Your task to perform on an android device: Check the weather Image 0: 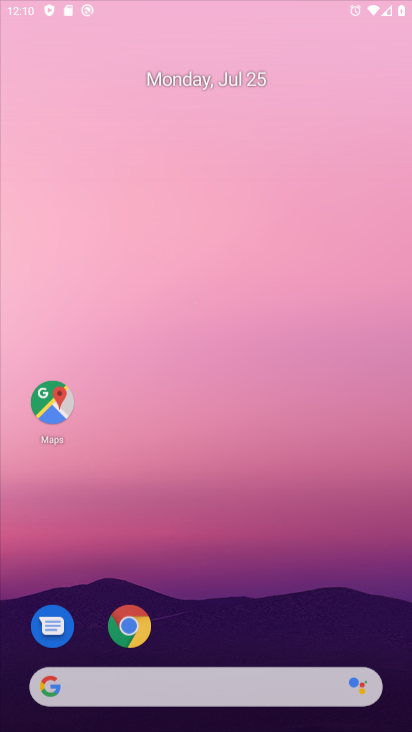
Step 0: click (301, 92)
Your task to perform on an android device: Check the weather Image 1: 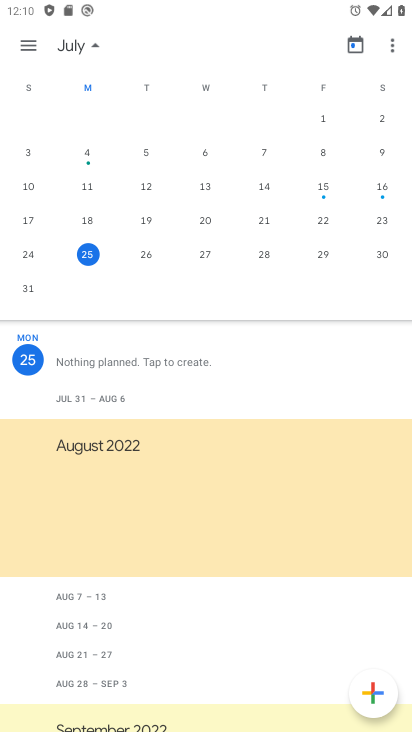
Step 1: press back button
Your task to perform on an android device: Check the weather Image 2: 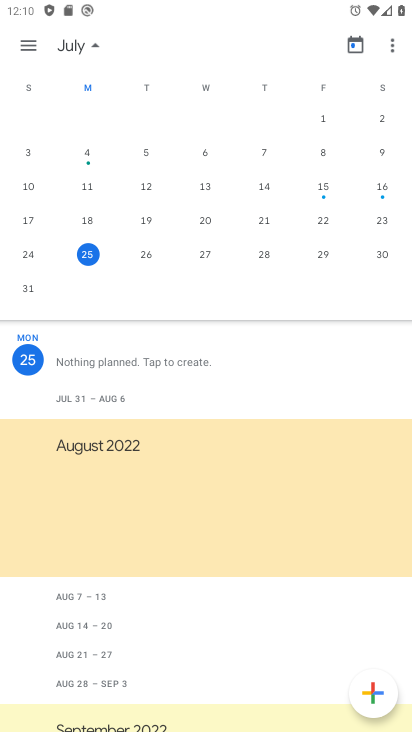
Step 2: press back button
Your task to perform on an android device: Check the weather Image 3: 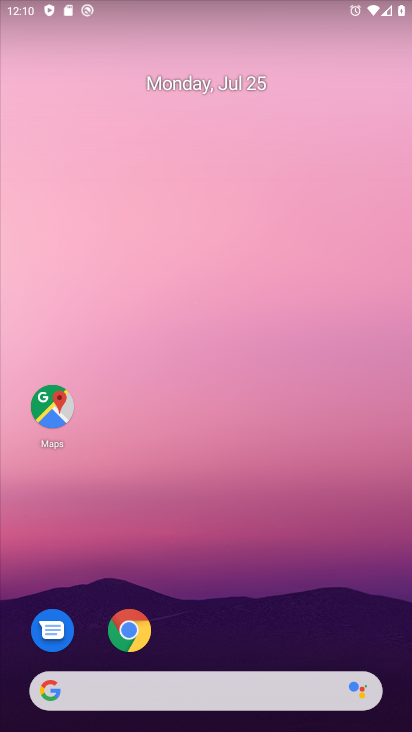
Step 3: drag from (211, 609) to (161, 59)
Your task to perform on an android device: Check the weather Image 4: 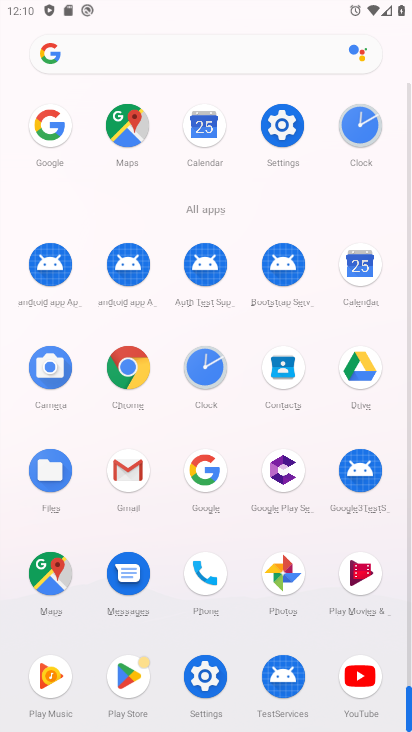
Step 4: click (126, 365)
Your task to perform on an android device: Check the weather Image 5: 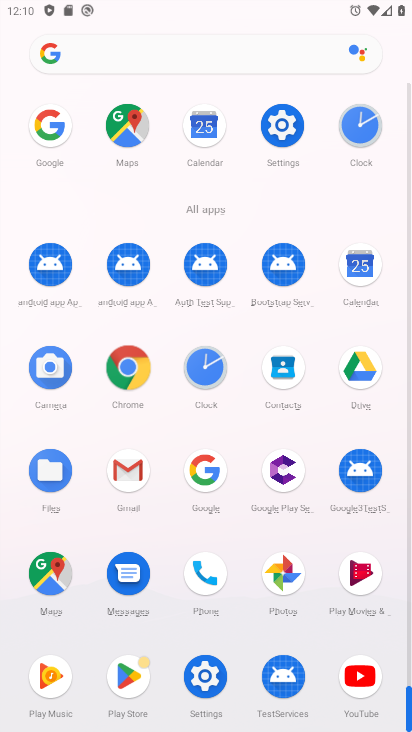
Step 5: click (130, 364)
Your task to perform on an android device: Check the weather Image 6: 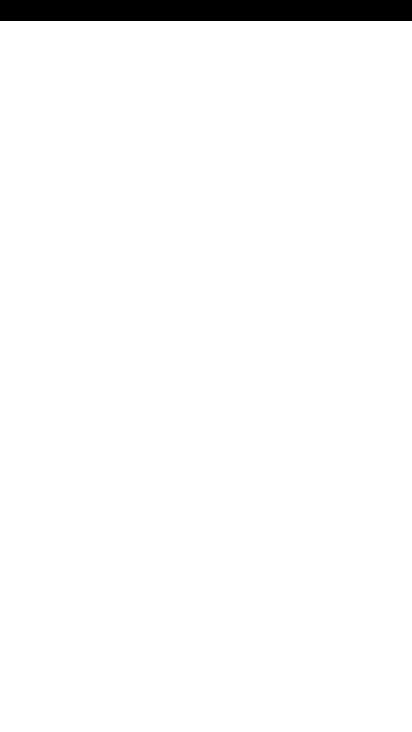
Step 6: click (133, 367)
Your task to perform on an android device: Check the weather Image 7: 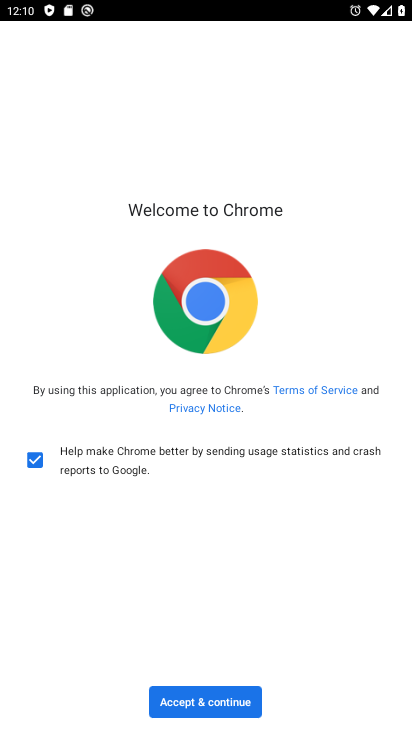
Step 7: click (210, 703)
Your task to perform on an android device: Check the weather Image 8: 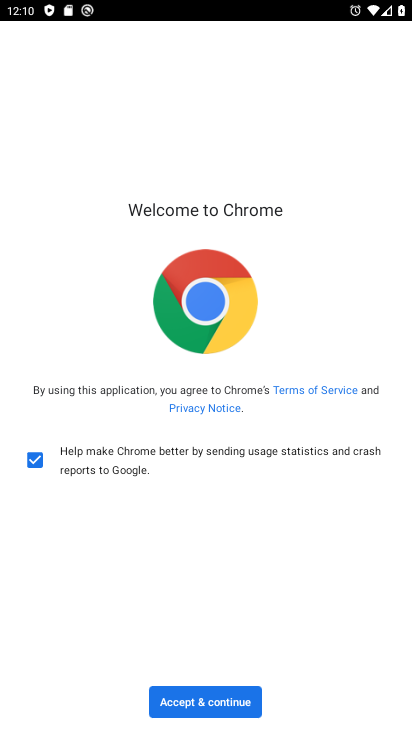
Step 8: click (210, 703)
Your task to perform on an android device: Check the weather Image 9: 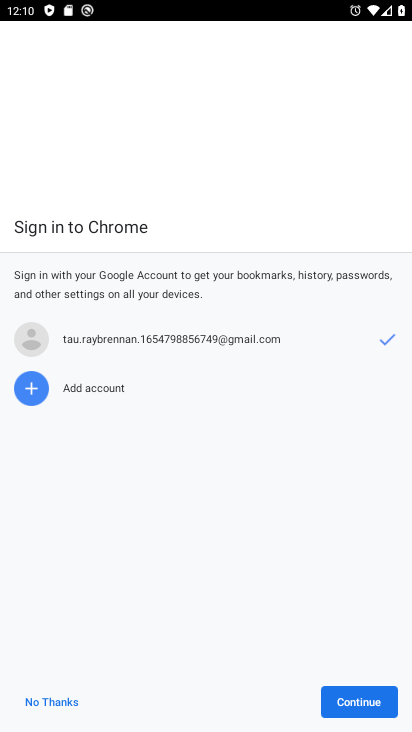
Step 9: click (58, 703)
Your task to perform on an android device: Check the weather Image 10: 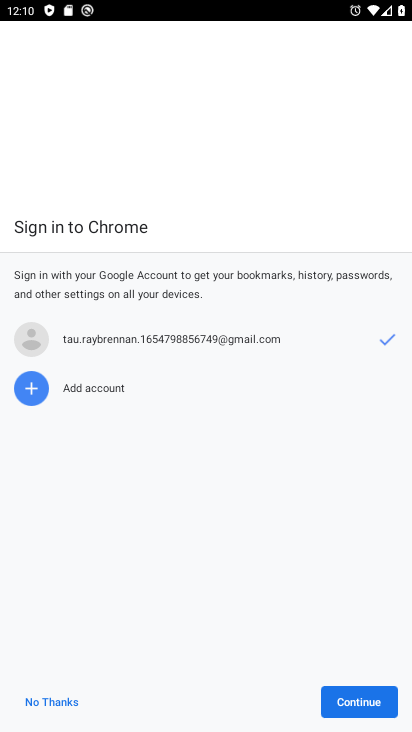
Step 10: click (65, 696)
Your task to perform on an android device: Check the weather Image 11: 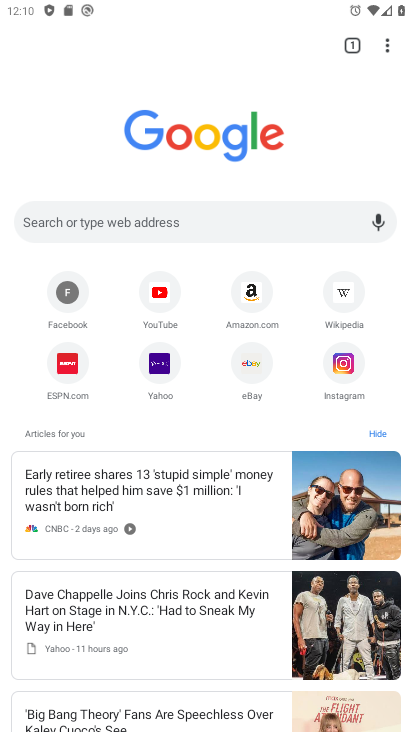
Step 11: click (88, 216)
Your task to perform on an android device: Check the weather Image 12: 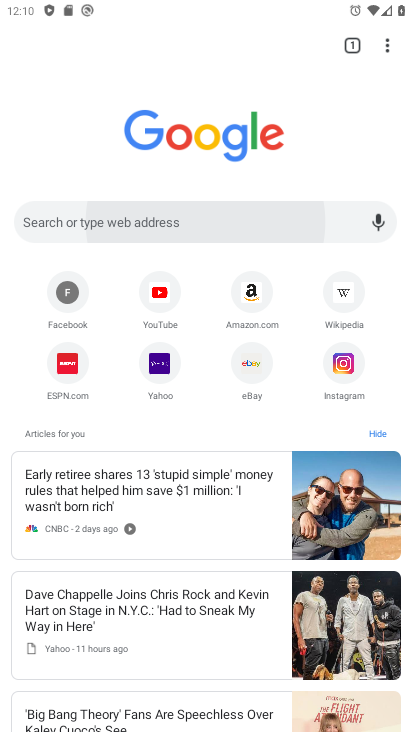
Step 12: click (85, 217)
Your task to perform on an android device: Check the weather Image 13: 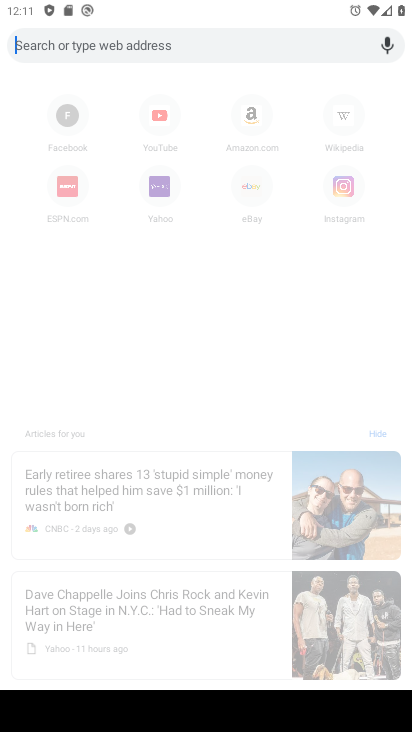
Step 13: type "weather today?"
Your task to perform on an android device: Check the weather Image 14: 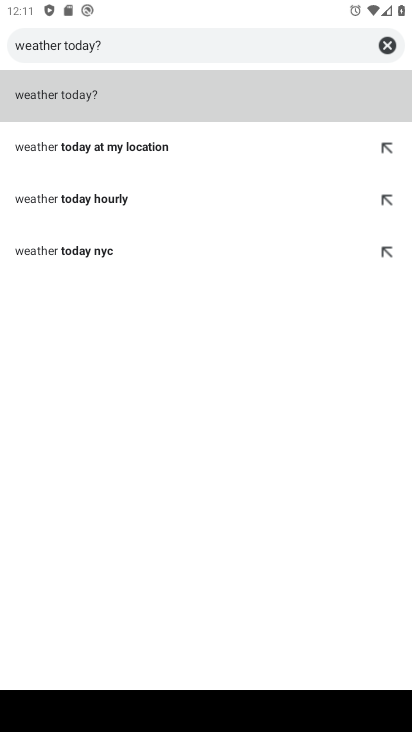
Step 14: click (59, 106)
Your task to perform on an android device: Check the weather Image 15: 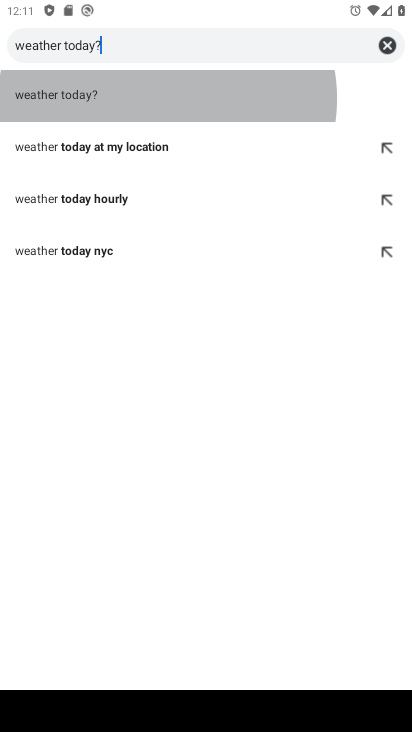
Step 15: click (72, 97)
Your task to perform on an android device: Check the weather Image 16: 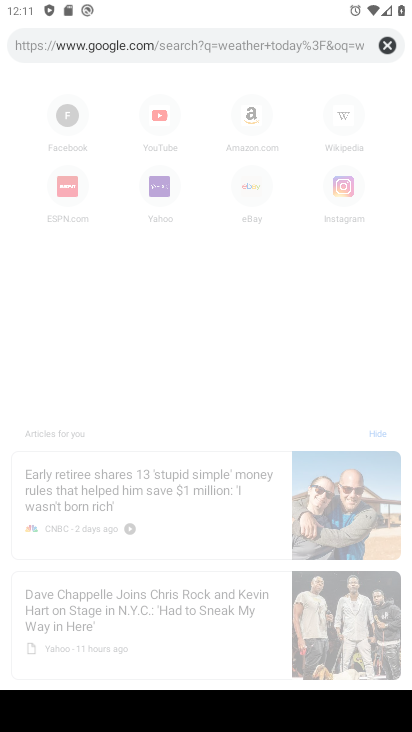
Step 16: click (76, 101)
Your task to perform on an android device: Check the weather Image 17: 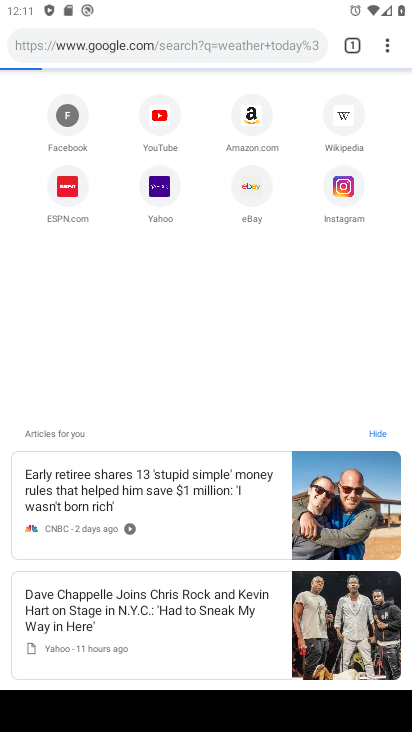
Step 17: click (91, 95)
Your task to perform on an android device: Check the weather Image 18: 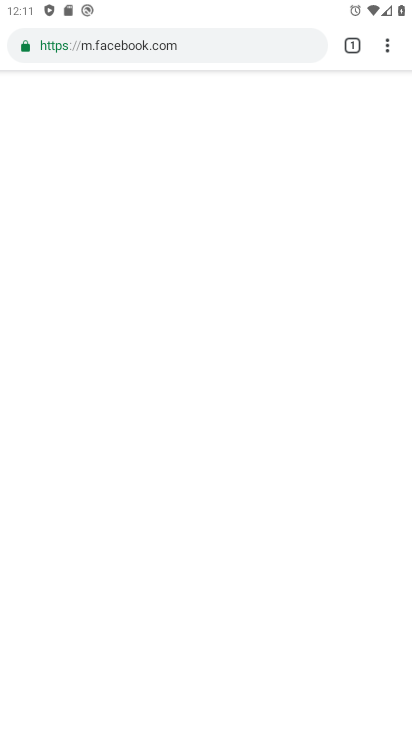
Step 18: task complete